Your task to perform on an android device: Check the latest 3D printers on Target. Image 0: 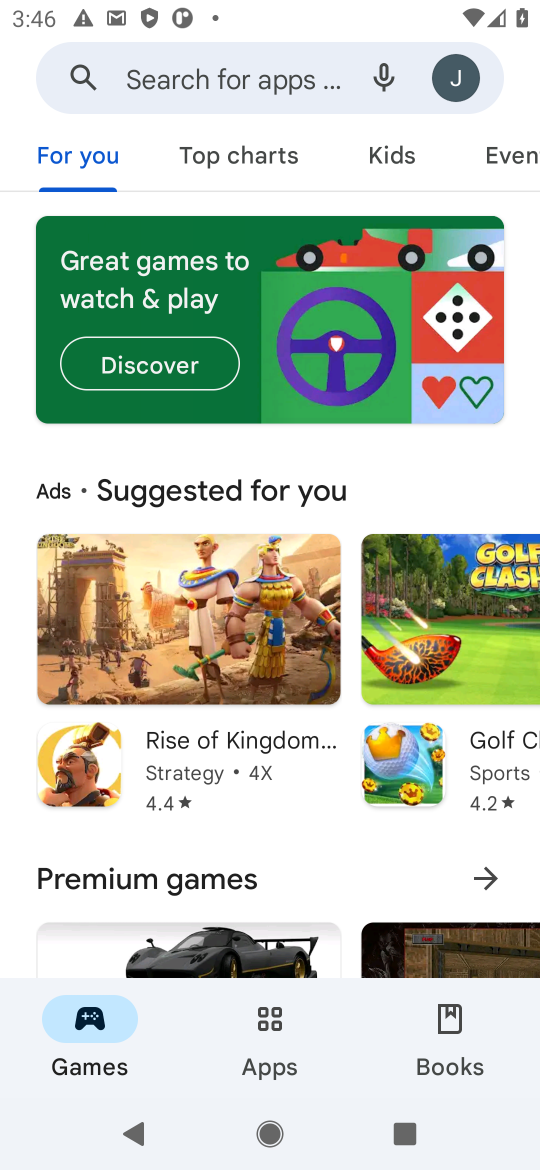
Step 0: press home button
Your task to perform on an android device: Check the latest 3D printers on Target. Image 1: 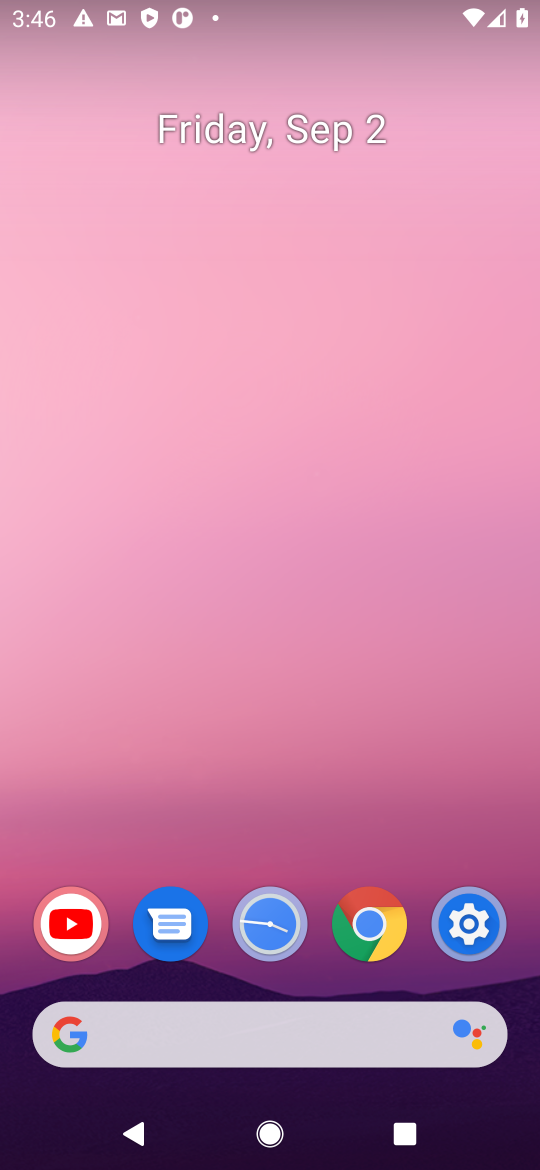
Step 1: click (390, 1033)
Your task to perform on an android device: Check the latest 3D printers on Target. Image 2: 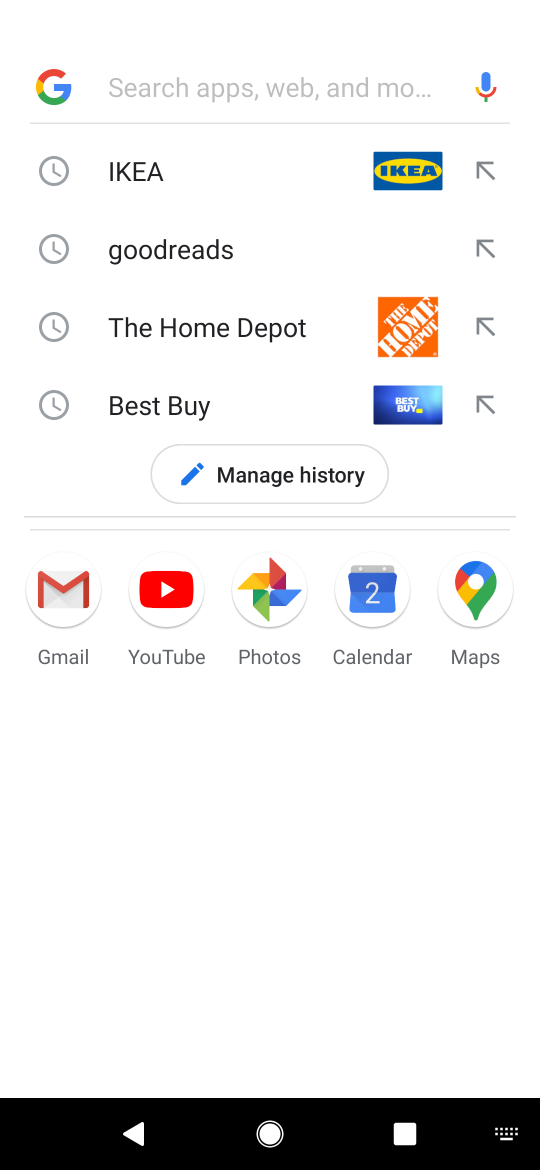
Step 2: press enter
Your task to perform on an android device: Check the latest 3D printers on Target. Image 3: 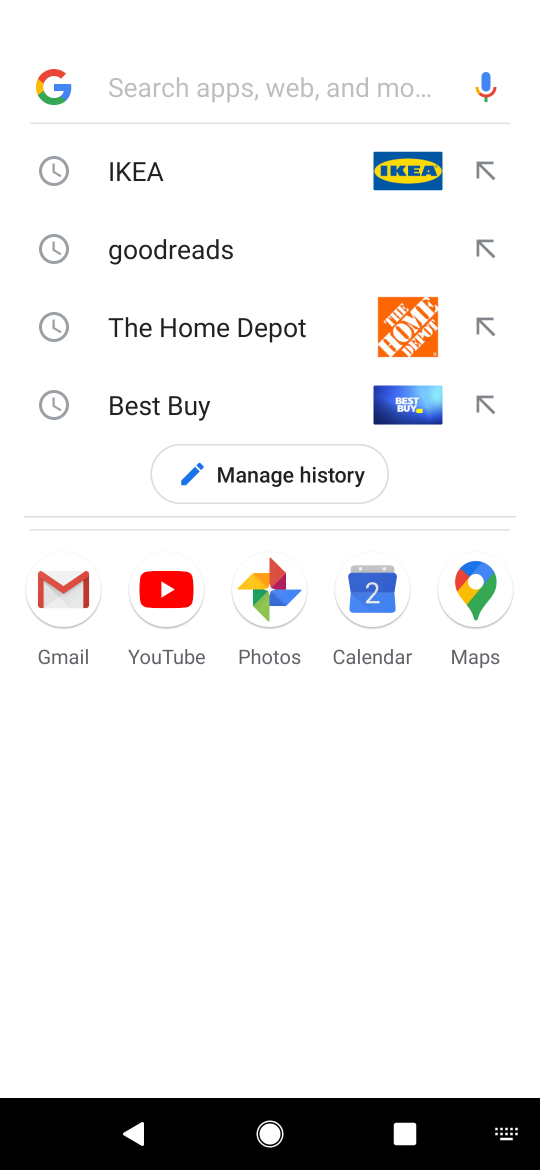
Step 3: type "target"
Your task to perform on an android device: Check the latest 3D printers on Target. Image 4: 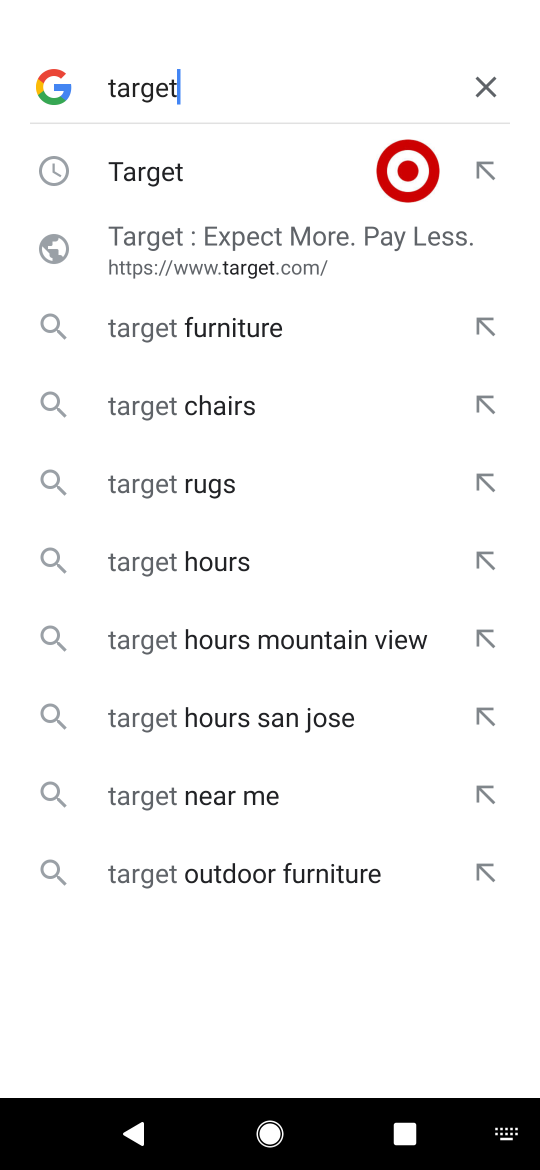
Step 4: click (182, 169)
Your task to perform on an android device: Check the latest 3D printers on Target. Image 5: 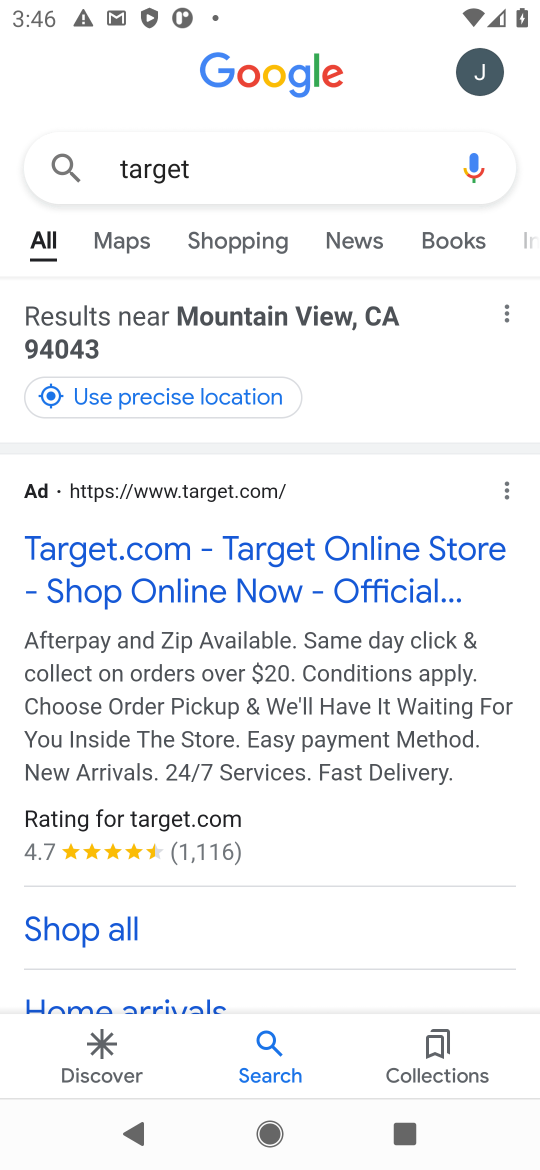
Step 5: click (314, 584)
Your task to perform on an android device: Check the latest 3D printers on Target. Image 6: 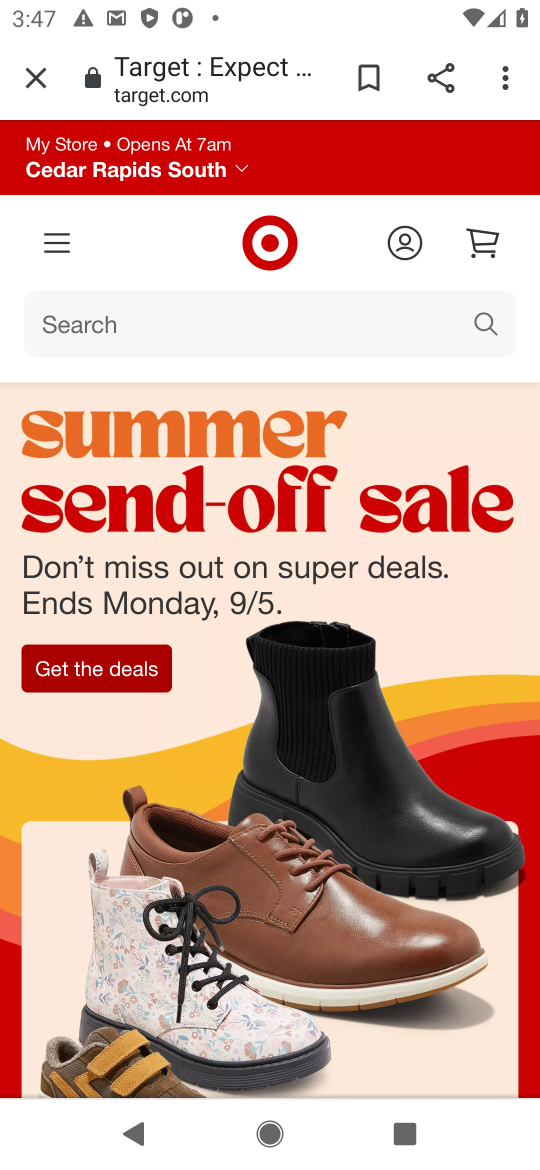
Step 6: click (317, 321)
Your task to perform on an android device: Check the latest 3D printers on Target. Image 7: 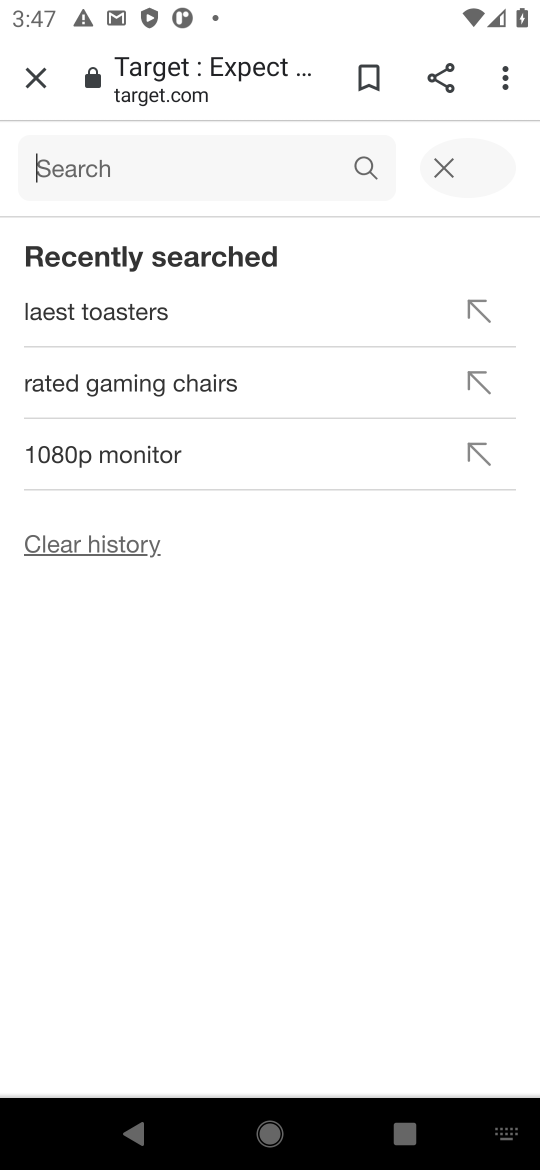
Step 7: type "3d printers"
Your task to perform on an android device: Check the latest 3D printers on Target. Image 8: 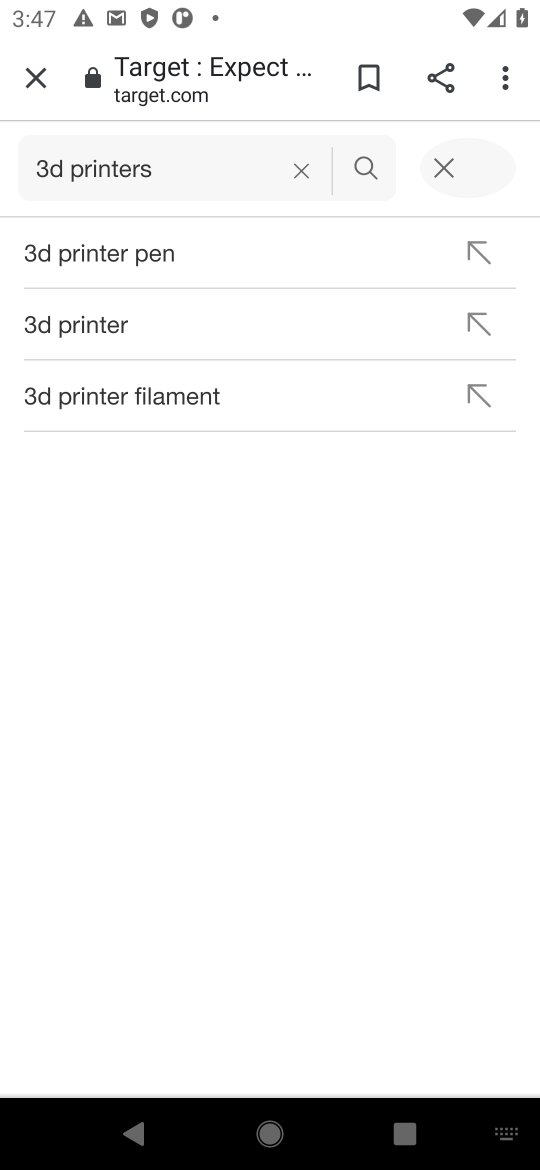
Step 8: click (241, 322)
Your task to perform on an android device: Check the latest 3D printers on Target. Image 9: 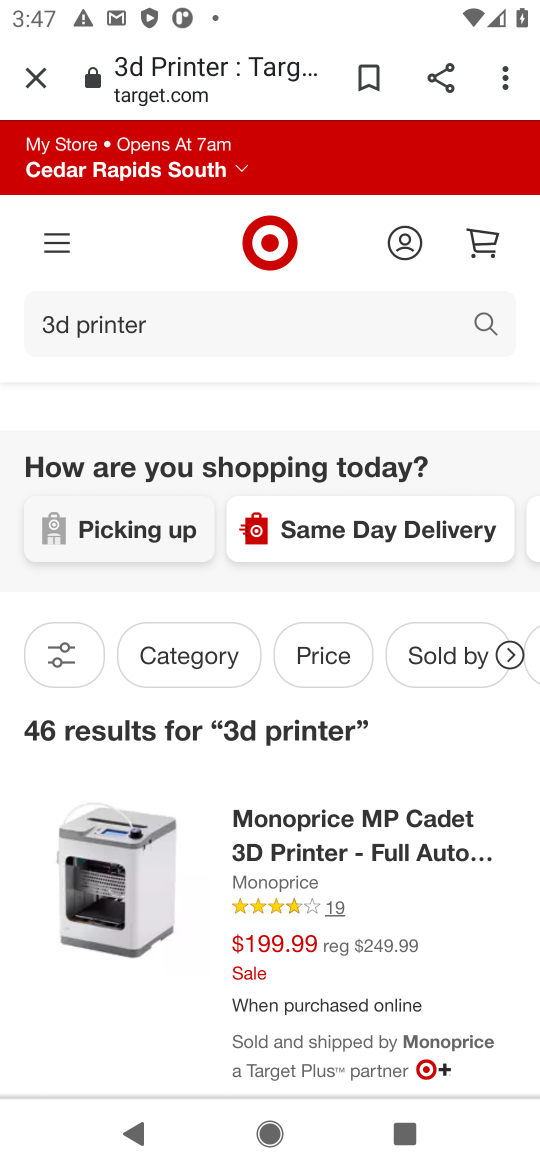
Step 9: task complete